Your task to perform on an android device: Open Wikipedia Image 0: 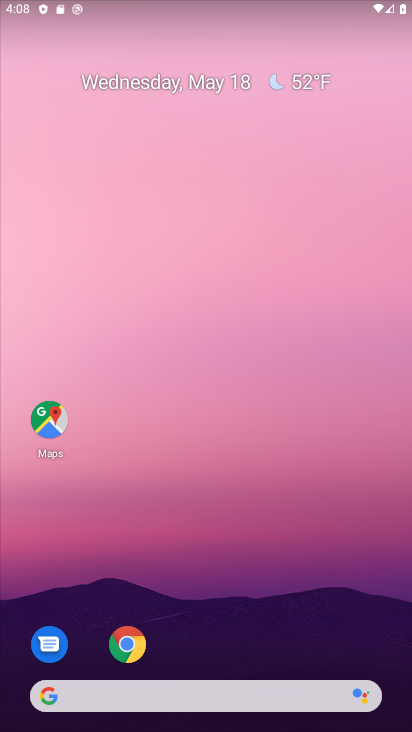
Step 0: click (112, 653)
Your task to perform on an android device: Open Wikipedia Image 1: 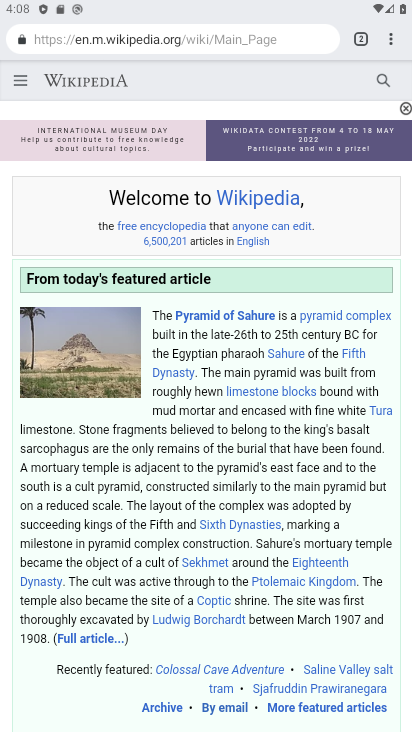
Step 1: task complete